Your task to perform on an android device: Do I have any events today? Image 0: 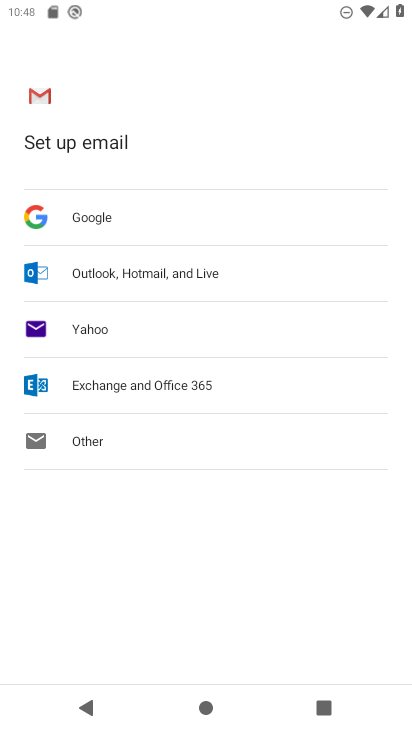
Step 0: press home button
Your task to perform on an android device: Do I have any events today? Image 1: 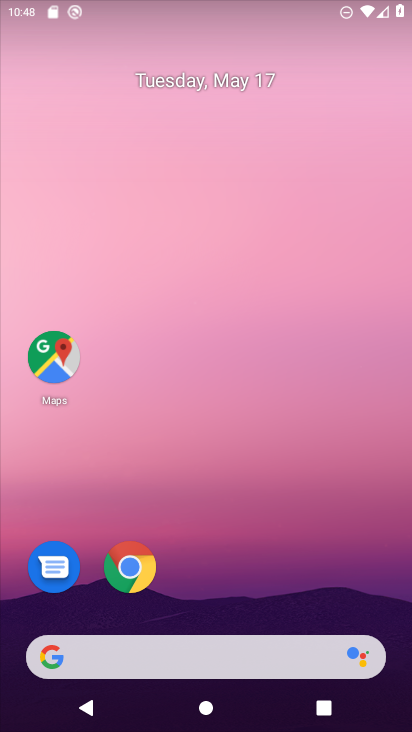
Step 1: drag from (197, 580) to (261, 178)
Your task to perform on an android device: Do I have any events today? Image 2: 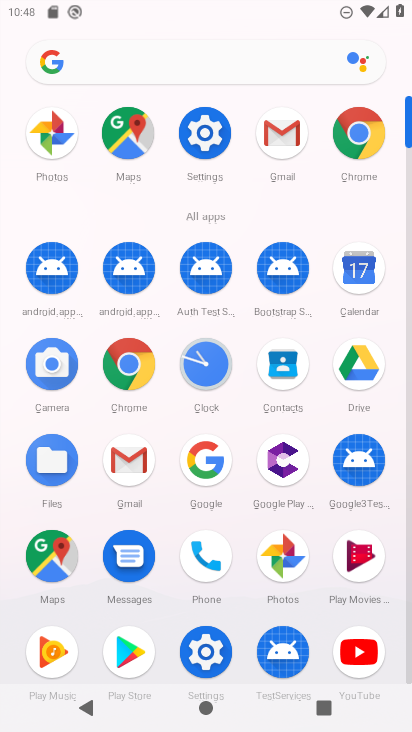
Step 2: click (364, 255)
Your task to perform on an android device: Do I have any events today? Image 3: 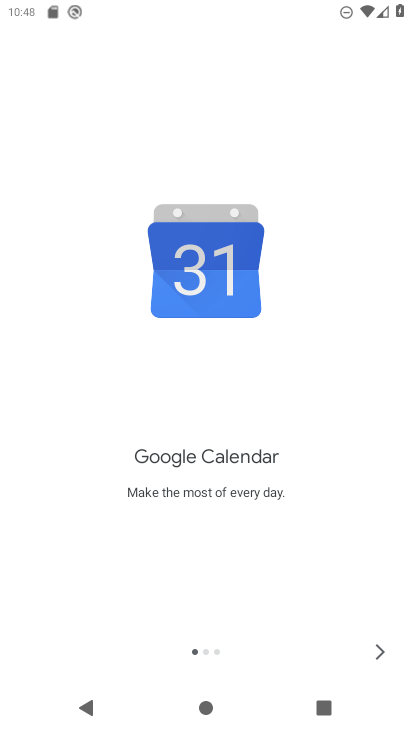
Step 3: click (380, 653)
Your task to perform on an android device: Do I have any events today? Image 4: 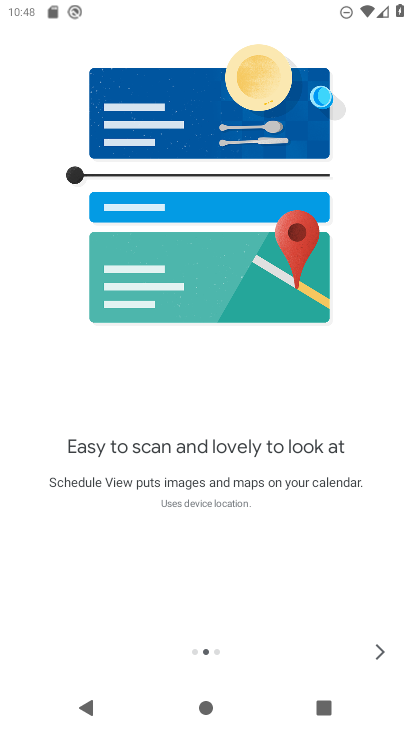
Step 4: click (378, 655)
Your task to perform on an android device: Do I have any events today? Image 5: 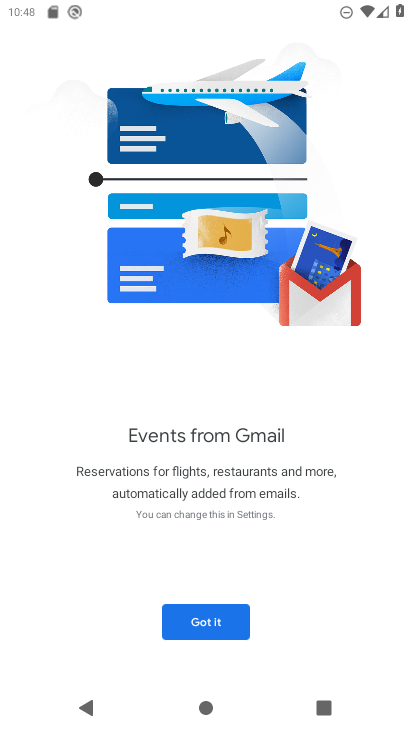
Step 5: click (214, 618)
Your task to perform on an android device: Do I have any events today? Image 6: 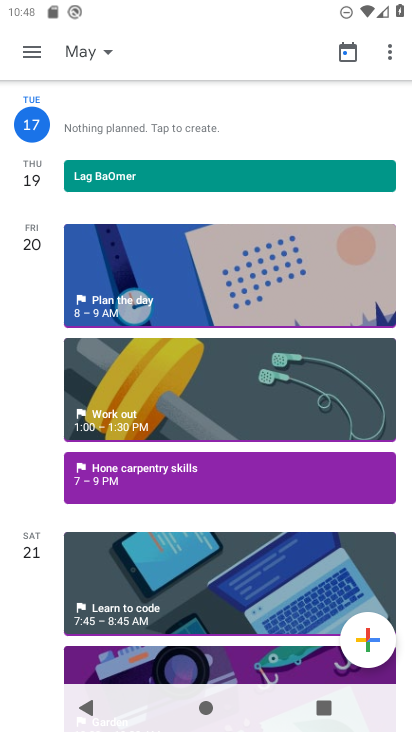
Step 6: click (31, 46)
Your task to perform on an android device: Do I have any events today? Image 7: 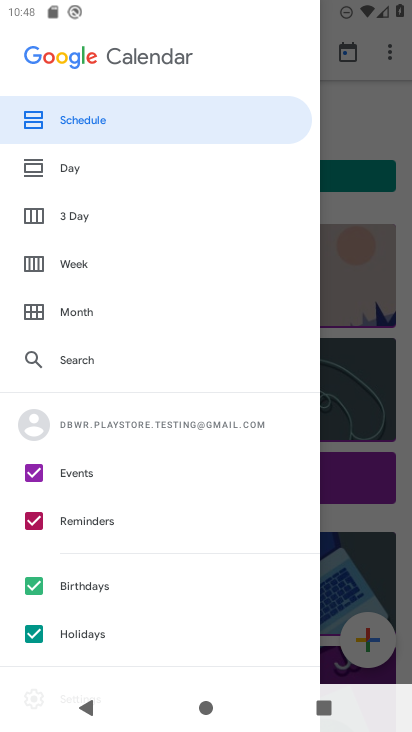
Step 7: click (101, 304)
Your task to perform on an android device: Do I have any events today? Image 8: 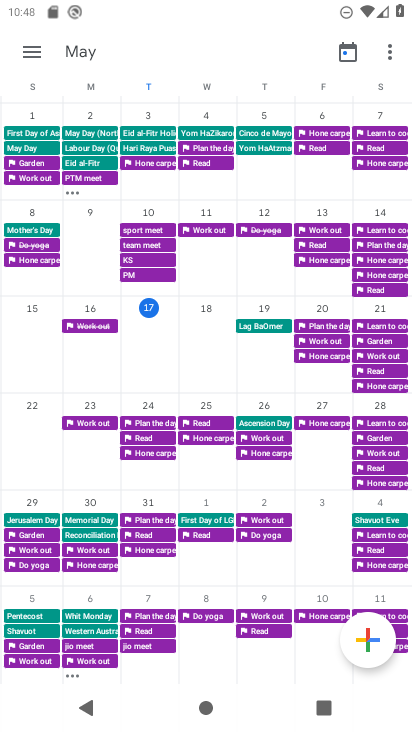
Step 8: click (195, 337)
Your task to perform on an android device: Do I have any events today? Image 9: 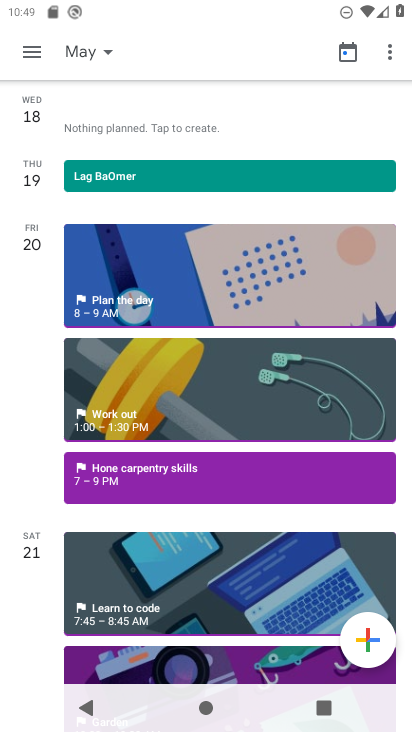
Step 9: task complete